Your task to perform on an android device: set the timer Image 0: 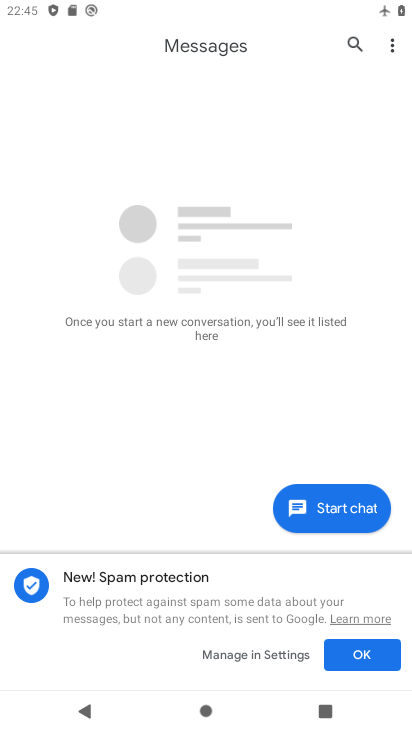
Step 0: press home button
Your task to perform on an android device: set the timer Image 1: 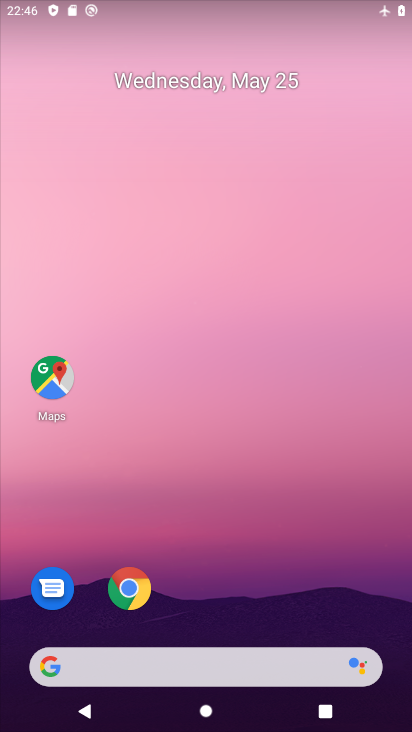
Step 1: drag from (250, 529) to (240, 138)
Your task to perform on an android device: set the timer Image 2: 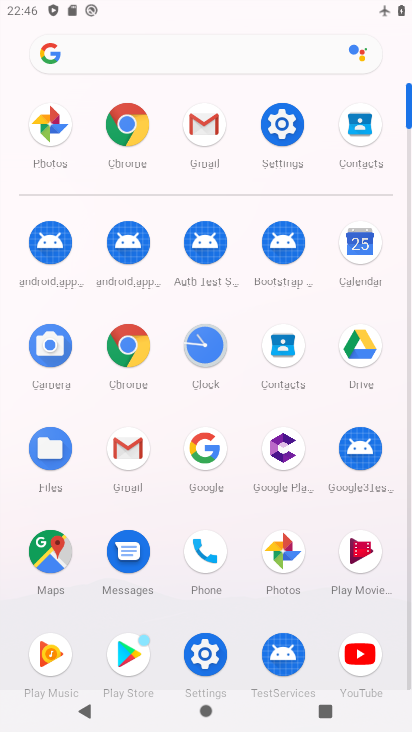
Step 2: click (201, 331)
Your task to perform on an android device: set the timer Image 3: 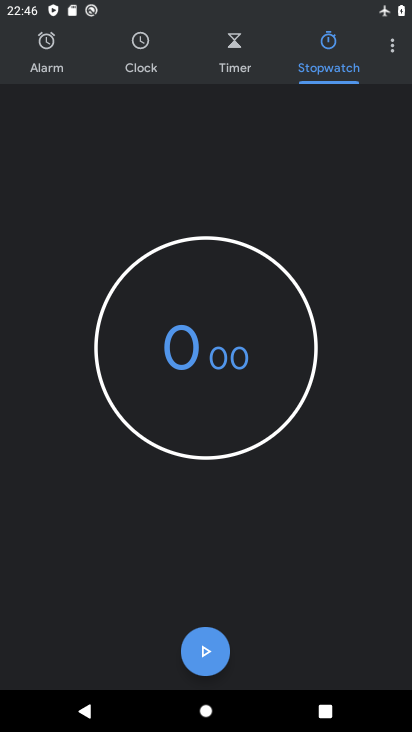
Step 3: click (215, 35)
Your task to perform on an android device: set the timer Image 4: 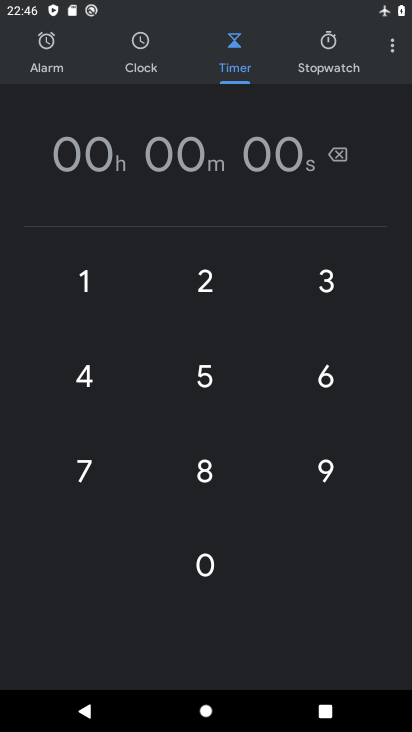
Step 4: click (198, 362)
Your task to perform on an android device: set the timer Image 5: 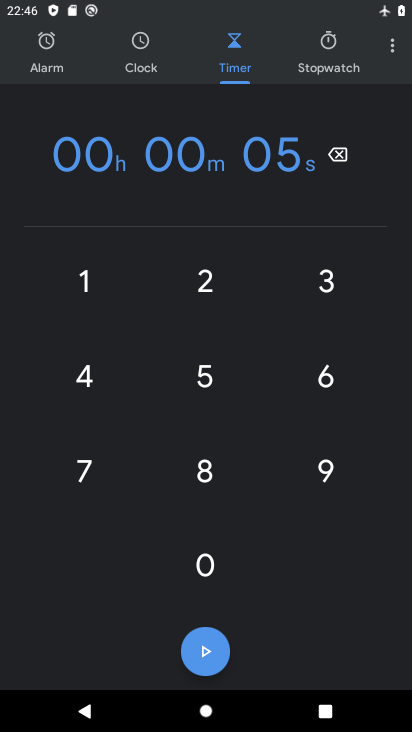
Step 5: task complete